Your task to perform on an android device: Turn on the flashlight Image 0: 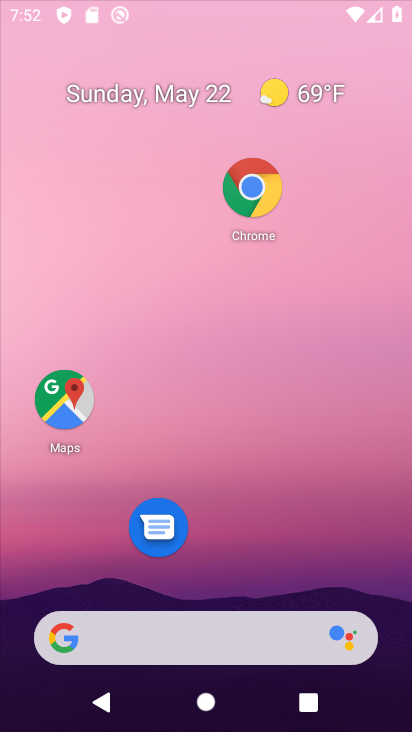
Step 0: press home button
Your task to perform on an android device: Turn on the flashlight Image 1: 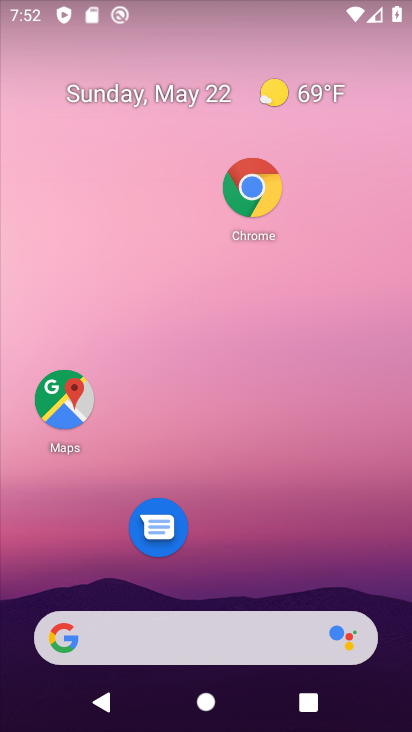
Step 1: drag from (218, 576) to (229, 101)
Your task to perform on an android device: Turn on the flashlight Image 2: 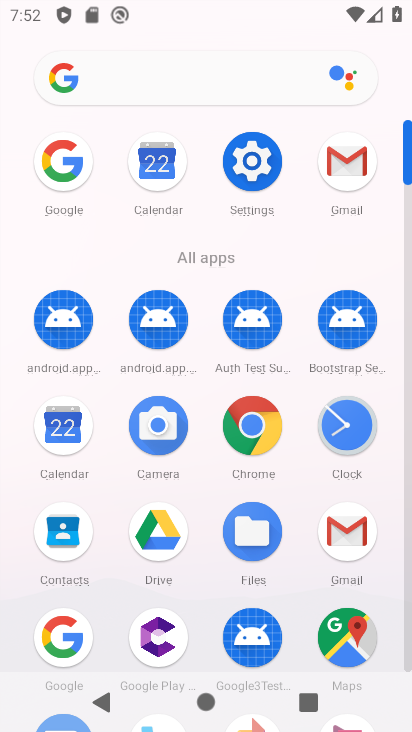
Step 2: click (247, 157)
Your task to perform on an android device: Turn on the flashlight Image 3: 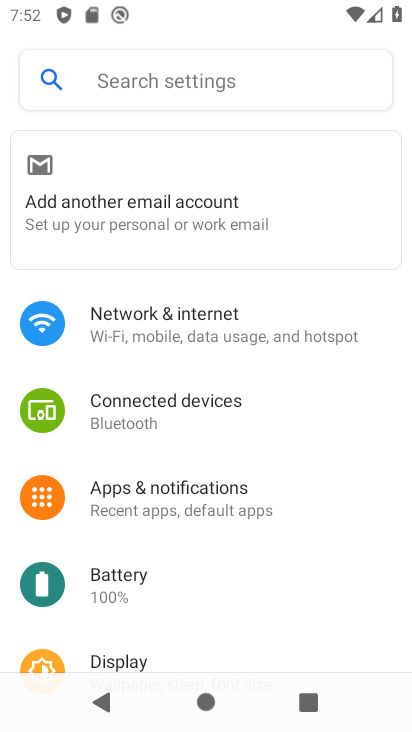
Step 3: click (167, 75)
Your task to perform on an android device: Turn on the flashlight Image 4: 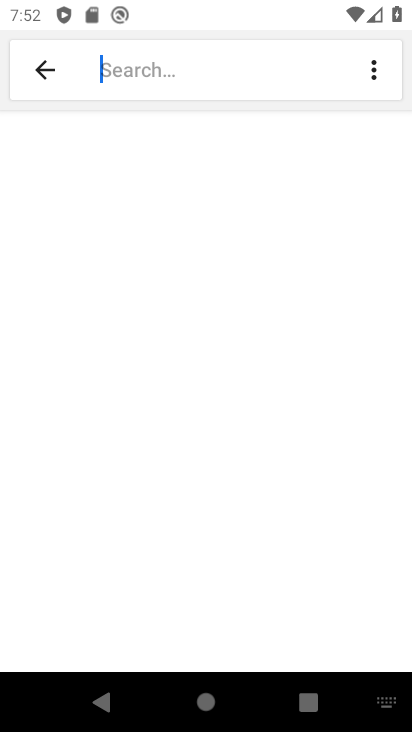
Step 4: type "flashlight"
Your task to perform on an android device: Turn on the flashlight Image 5: 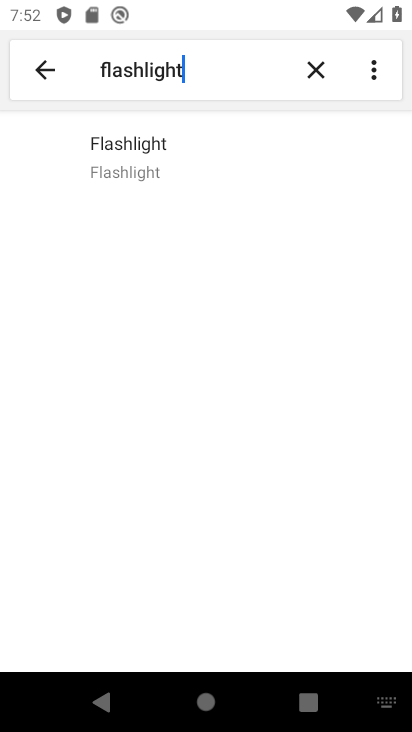
Step 5: click (136, 167)
Your task to perform on an android device: Turn on the flashlight Image 6: 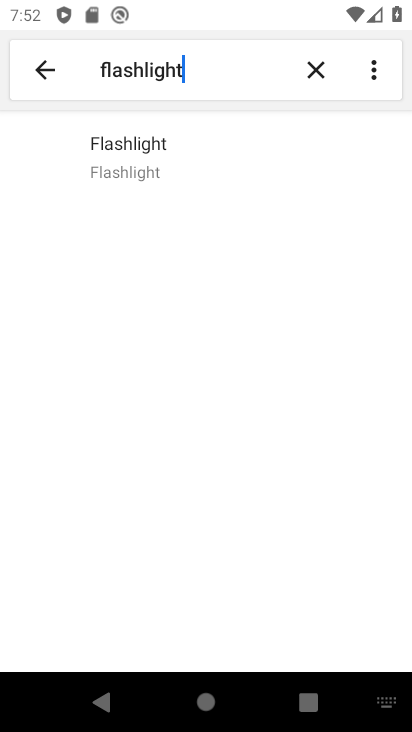
Step 6: click (140, 158)
Your task to perform on an android device: Turn on the flashlight Image 7: 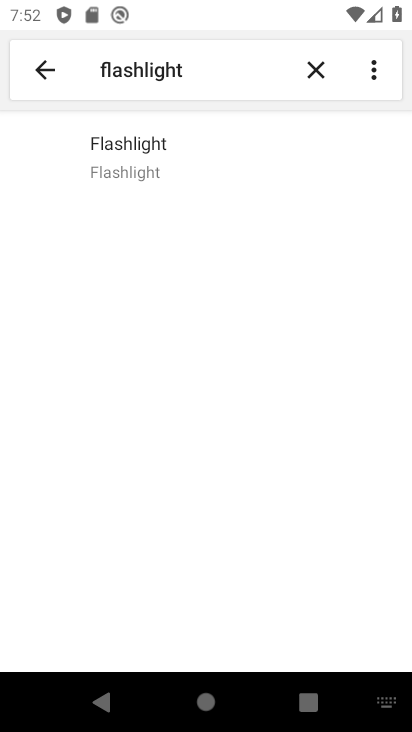
Step 7: task complete